Your task to perform on an android device: Open calendar and show me the first week of next month Image 0: 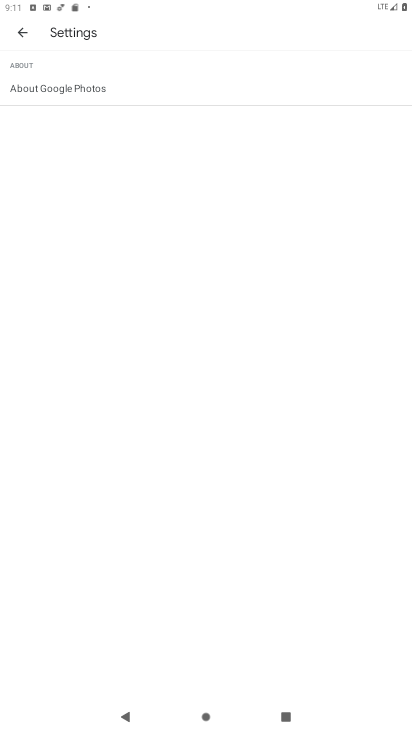
Step 0: press home button
Your task to perform on an android device: Open calendar and show me the first week of next month Image 1: 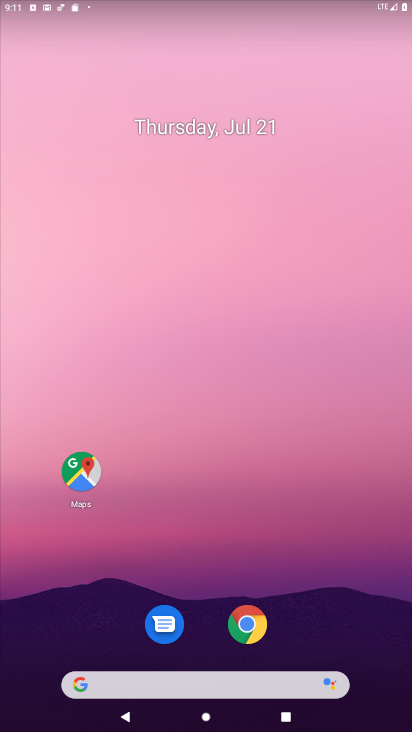
Step 1: drag from (36, 646) to (391, 43)
Your task to perform on an android device: Open calendar and show me the first week of next month Image 2: 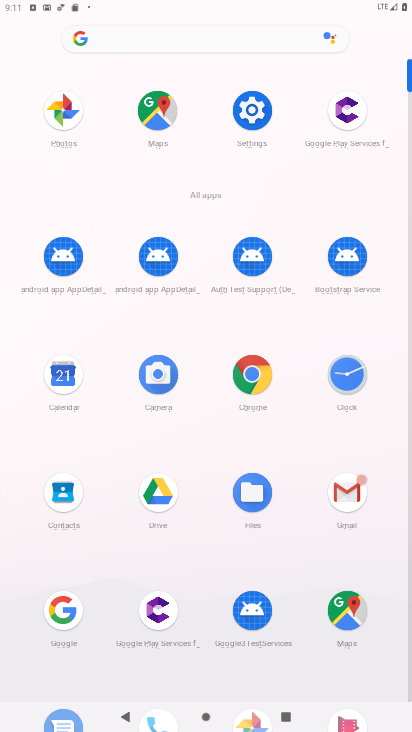
Step 2: click (59, 380)
Your task to perform on an android device: Open calendar and show me the first week of next month Image 3: 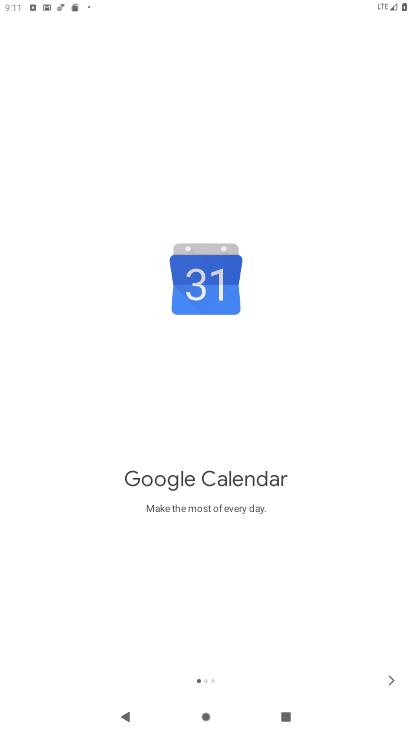
Step 3: click (397, 678)
Your task to perform on an android device: Open calendar and show me the first week of next month Image 4: 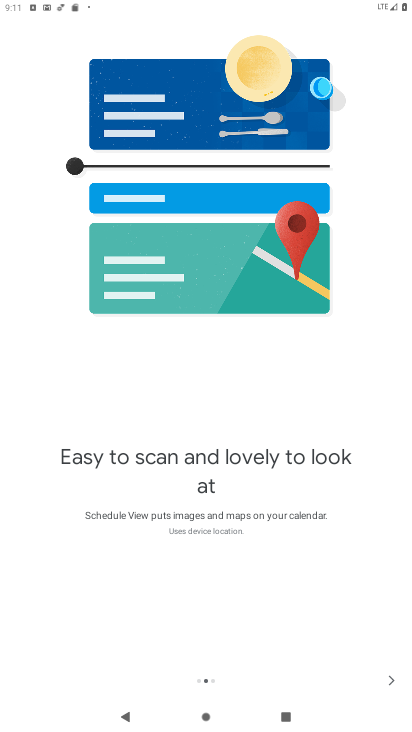
Step 4: click (398, 678)
Your task to perform on an android device: Open calendar and show me the first week of next month Image 5: 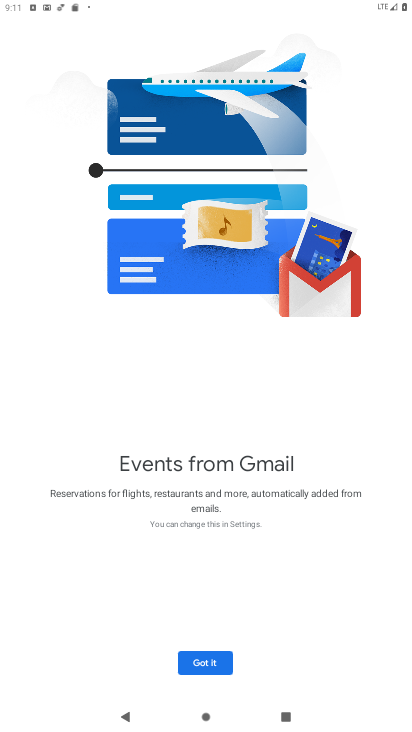
Step 5: click (209, 660)
Your task to perform on an android device: Open calendar and show me the first week of next month Image 6: 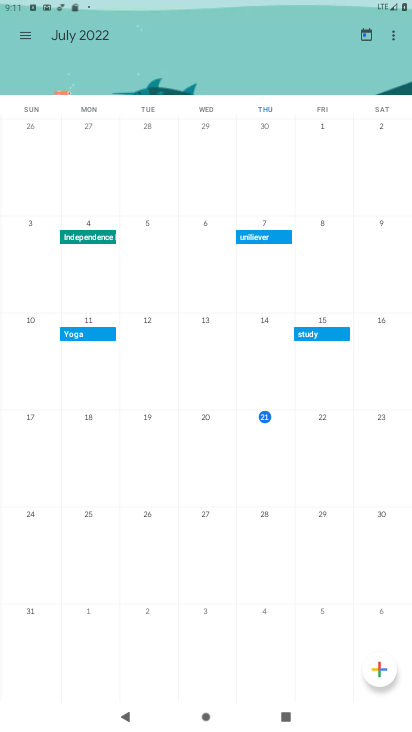
Step 6: click (86, 35)
Your task to perform on an android device: Open calendar and show me the first week of next month Image 7: 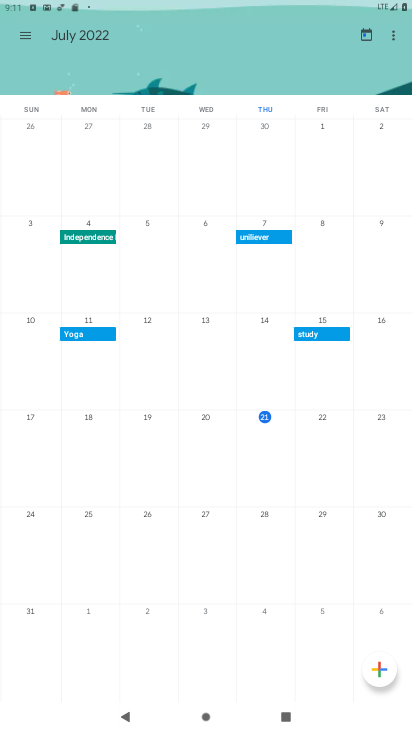
Step 7: click (85, 35)
Your task to perform on an android device: Open calendar and show me the first week of next month Image 8: 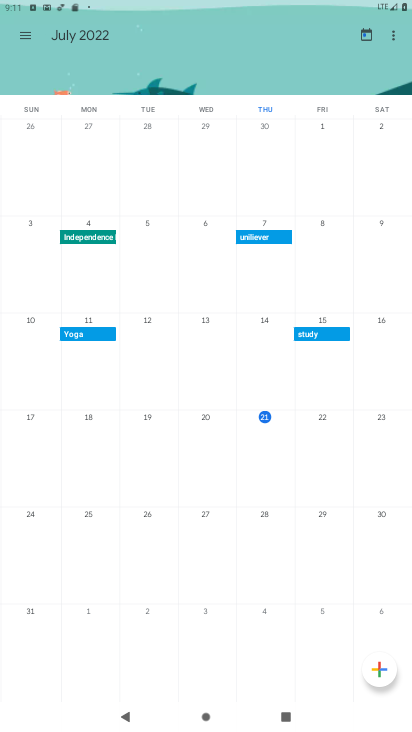
Step 8: click (65, 44)
Your task to perform on an android device: Open calendar and show me the first week of next month Image 9: 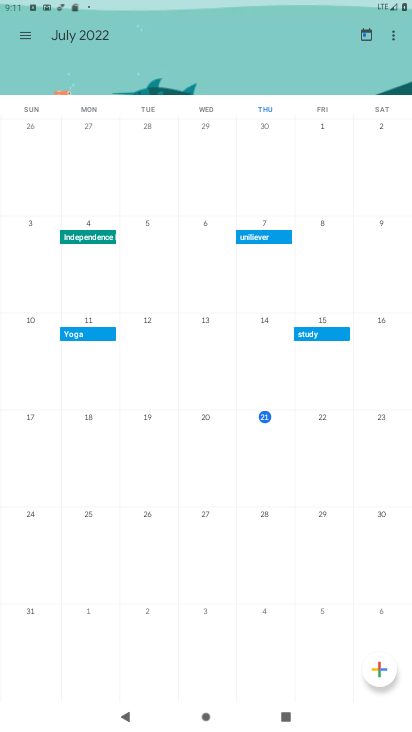
Step 9: click (70, 34)
Your task to perform on an android device: Open calendar and show me the first week of next month Image 10: 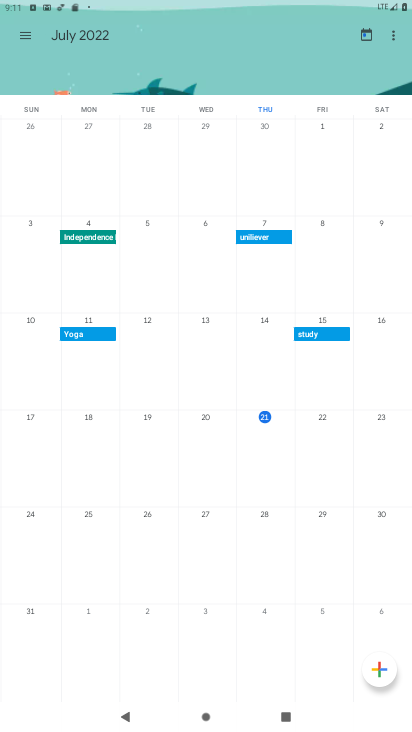
Step 10: click (70, 34)
Your task to perform on an android device: Open calendar and show me the first week of next month Image 11: 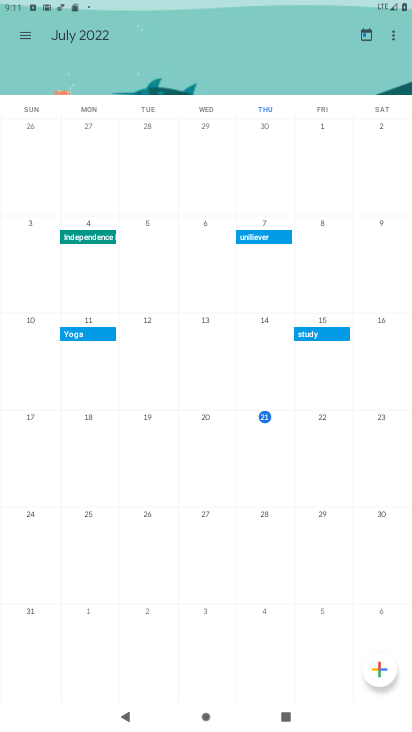
Step 11: click (70, 34)
Your task to perform on an android device: Open calendar and show me the first week of next month Image 12: 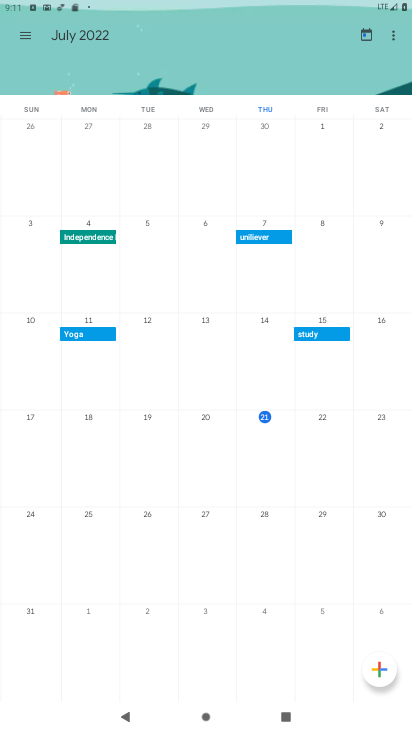
Step 12: task complete